Your task to perform on an android device: add a contact in the contacts app Image 0: 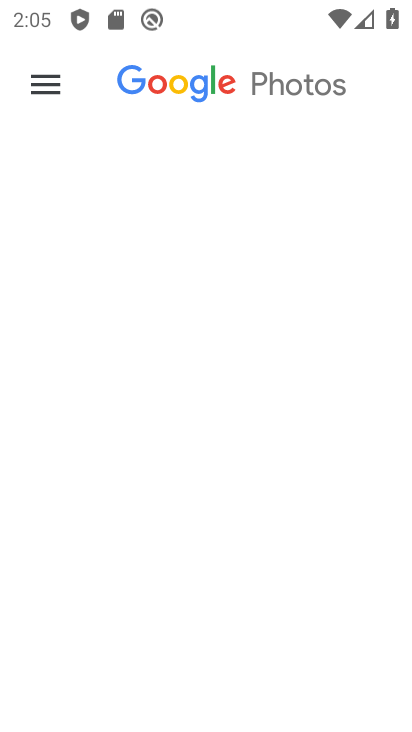
Step 0: press home button
Your task to perform on an android device: add a contact in the contacts app Image 1: 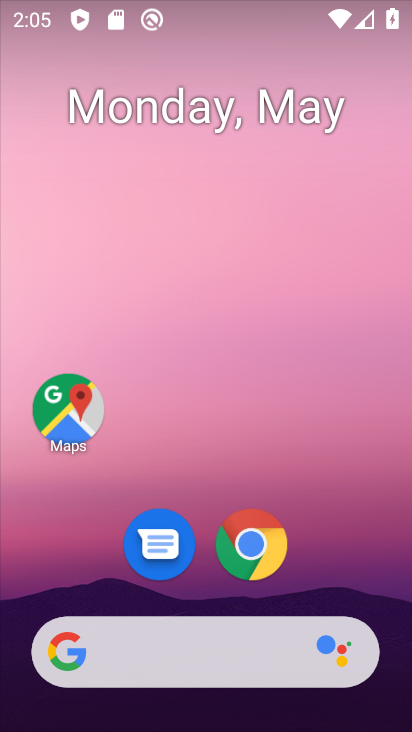
Step 1: drag from (200, 578) to (200, 149)
Your task to perform on an android device: add a contact in the contacts app Image 2: 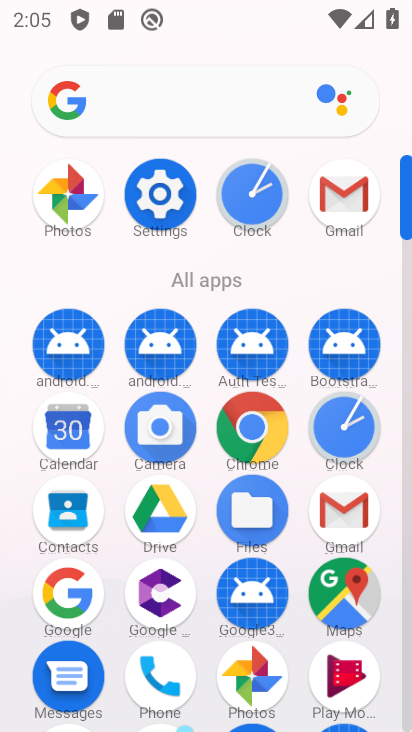
Step 2: click (76, 523)
Your task to perform on an android device: add a contact in the contacts app Image 3: 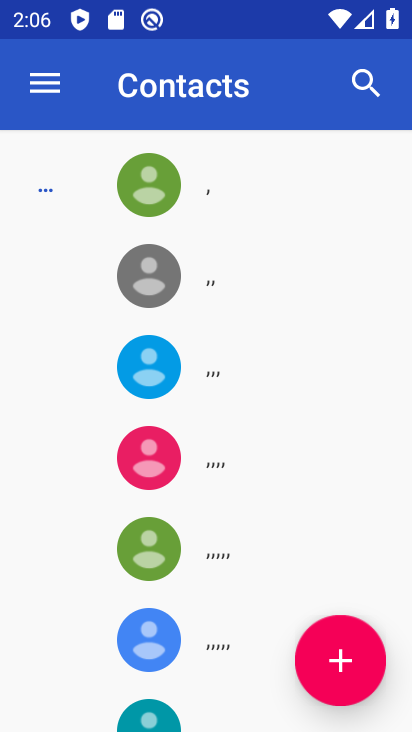
Step 3: click (316, 646)
Your task to perform on an android device: add a contact in the contacts app Image 4: 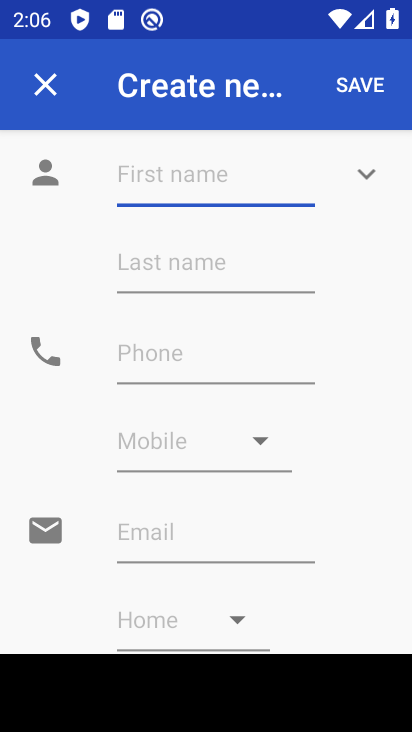
Step 4: type "ghddf"
Your task to perform on an android device: add a contact in the contacts app Image 5: 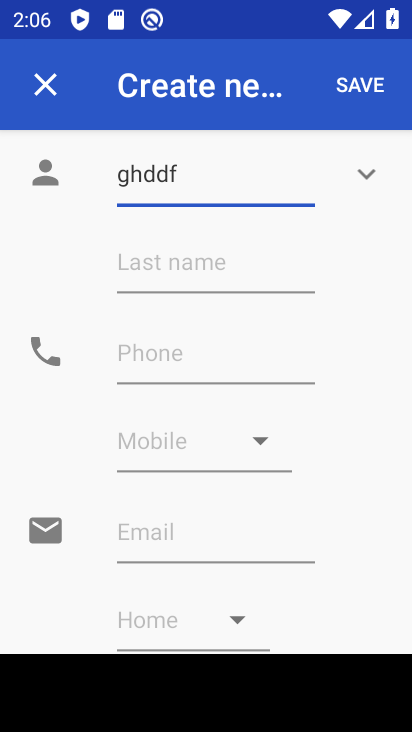
Step 5: click (199, 350)
Your task to perform on an android device: add a contact in the contacts app Image 6: 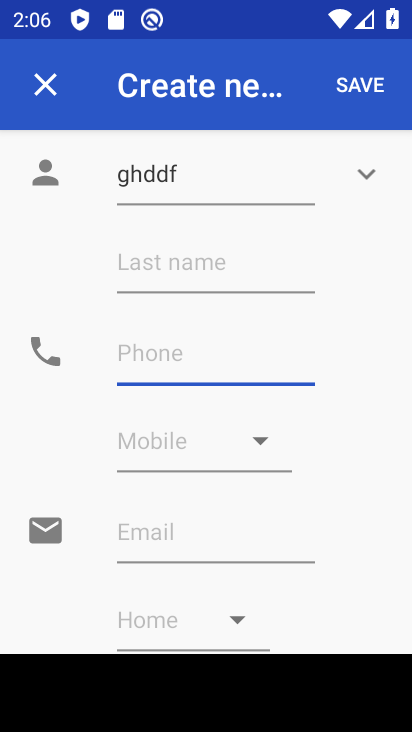
Step 6: type "97766565475456675"
Your task to perform on an android device: add a contact in the contacts app Image 7: 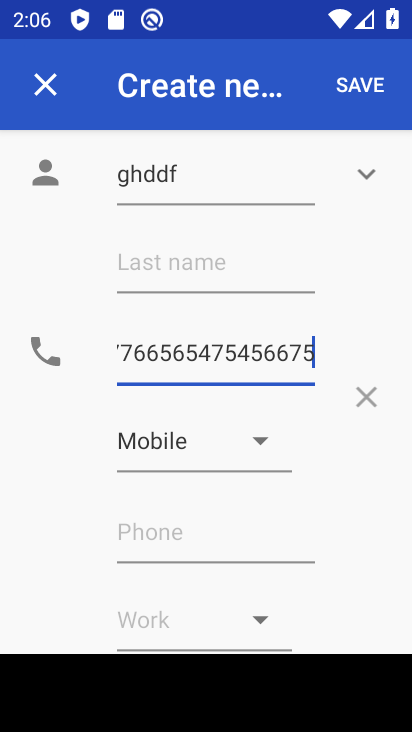
Step 7: click (359, 79)
Your task to perform on an android device: add a contact in the contacts app Image 8: 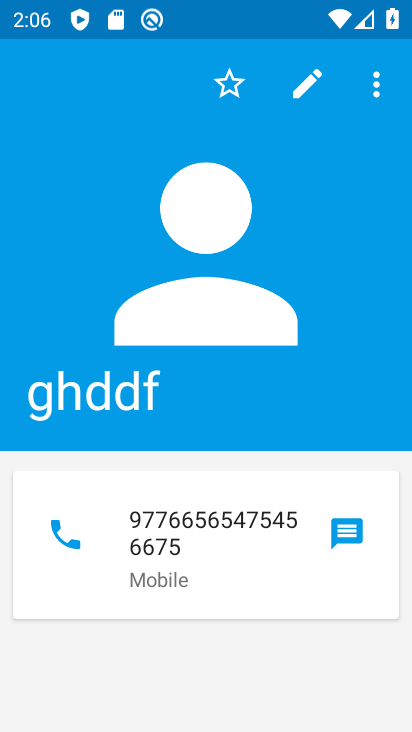
Step 8: task complete